Your task to perform on an android device: see creations saved in the google photos Image 0: 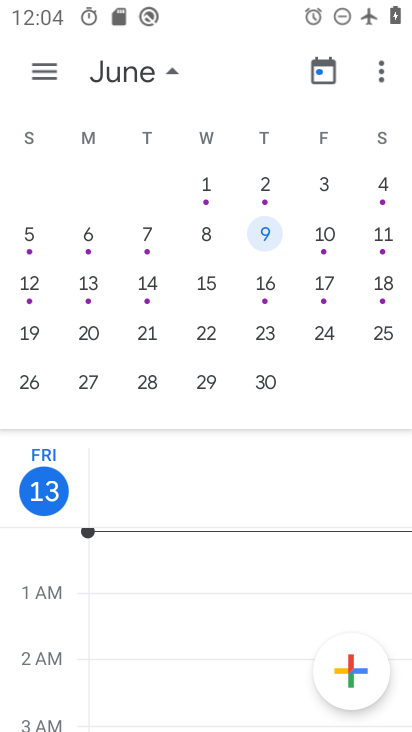
Step 0: press back button
Your task to perform on an android device: see creations saved in the google photos Image 1: 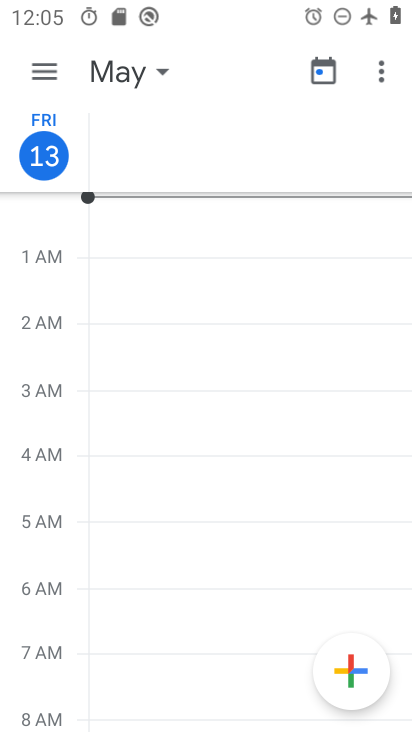
Step 1: press home button
Your task to perform on an android device: see creations saved in the google photos Image 2: 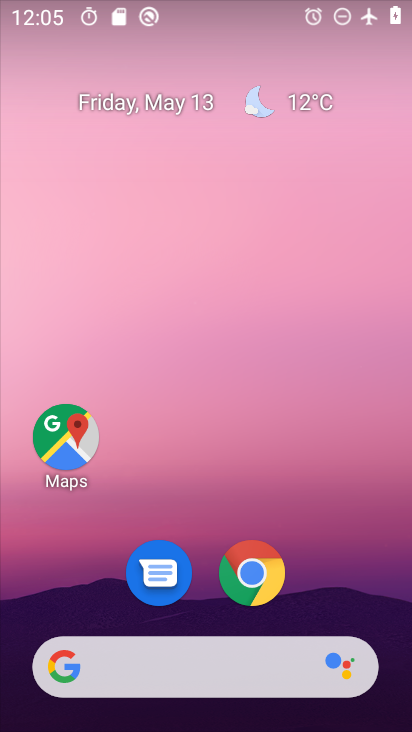
Step 2: click (333, 377)
Your task to perform on an android device: see creations saved in the google photos Image 3: 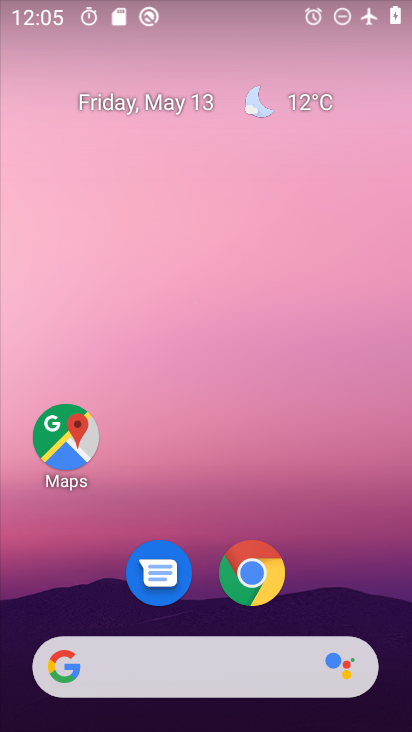
Step 3: drag from (400, 697) to (318, 249)
Your task to perform on an android device: see creations saved in the google photos Image 4: 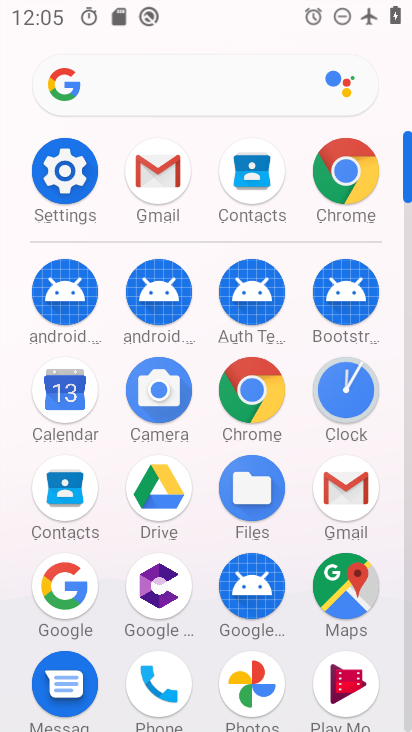
Step 4: click (257, 662)
Your task to perform on an android device: see creations saved in the google photos Image 5: 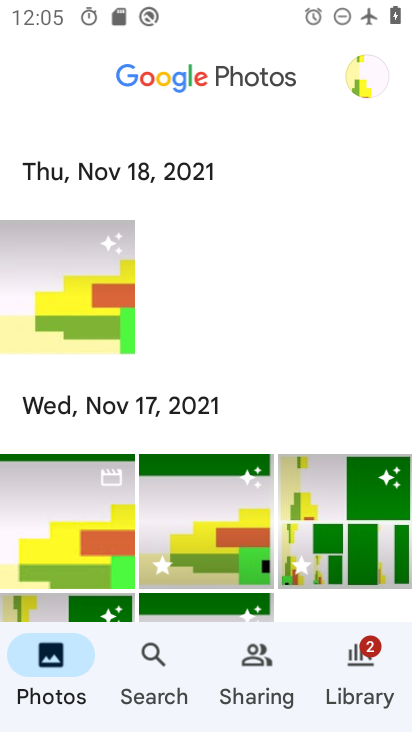
Step 5: click (80, 269)
Your task to perform on an android device: see creations saved in the google photos Image 6: 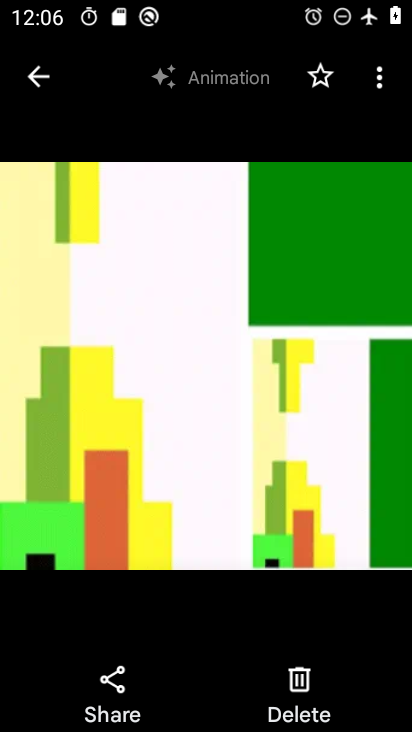
Step 6: click (51, 78)
Your task to perform on an android device: see creations saved in the google photos Image 7: 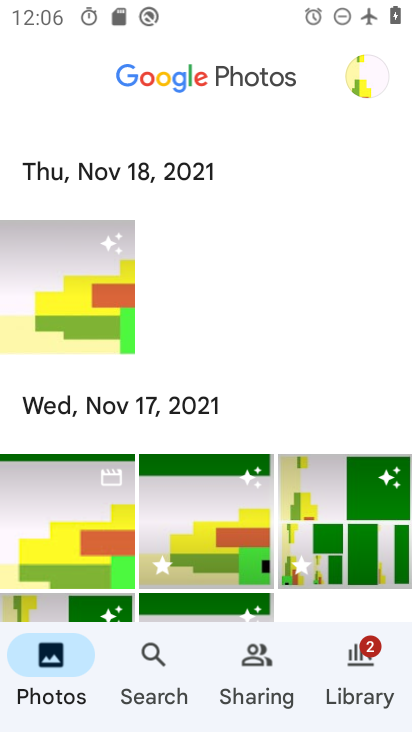
Step 7: task complete